Your task to perform on an android device: open device folders in google photos Image 0: 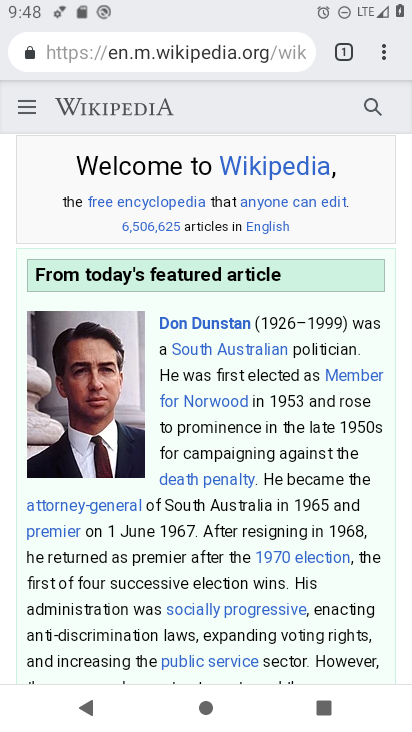
Step 0: press home button
Your task to perform on an android device: open device folders in google photos Image 1: 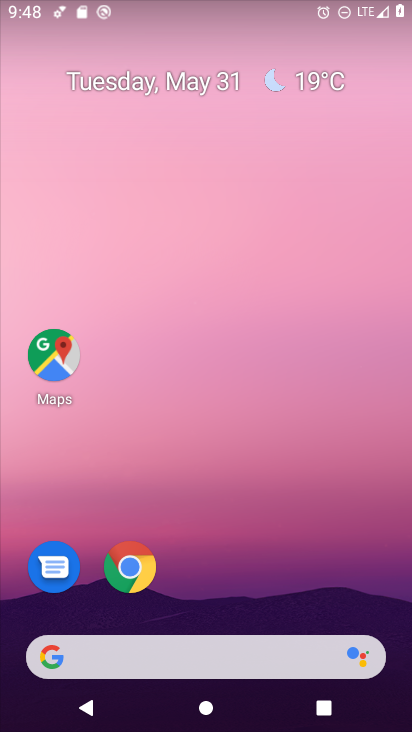
Step 1: drag from (219, 606) to (214, 317)
Your task to perform on an android device: open device folders in google photos Image 2: 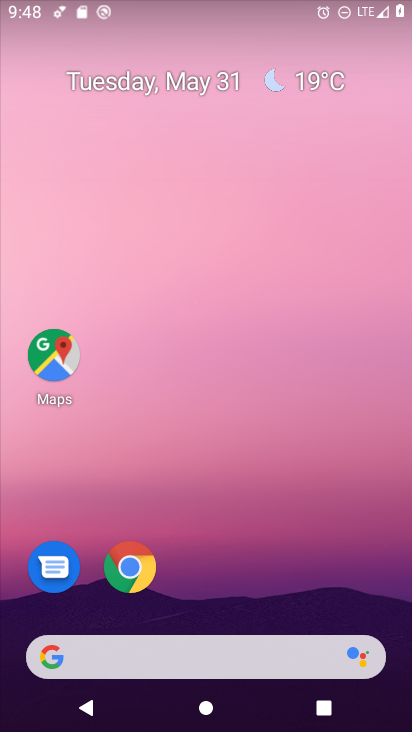
Step 2: drag from (228, 653) to (308, 181)
Your task to perform on an android device: open device folders in google photos Image 3: 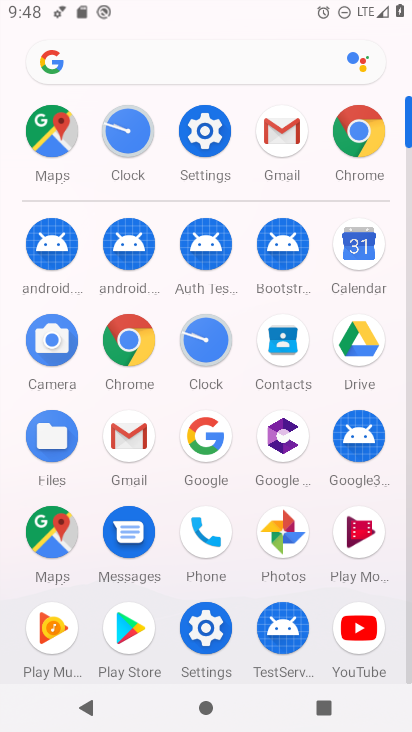
Step 3: click (289, 534)
Your task to perform on an android device: open device folders in google photos Image 4: 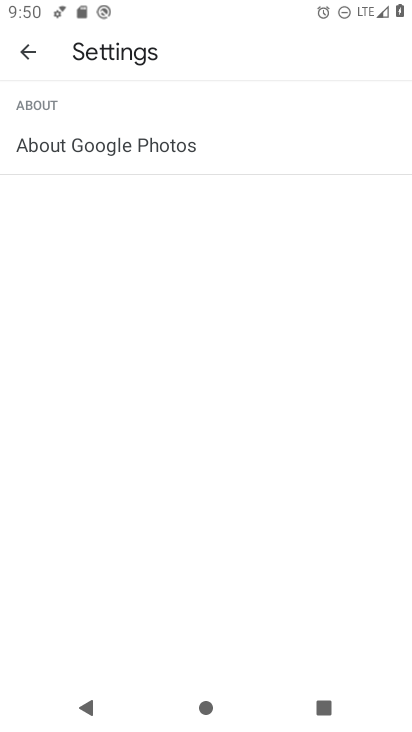
Step 4: press home button
Your task to perform on an android device: open device folders in google photos Image 5: 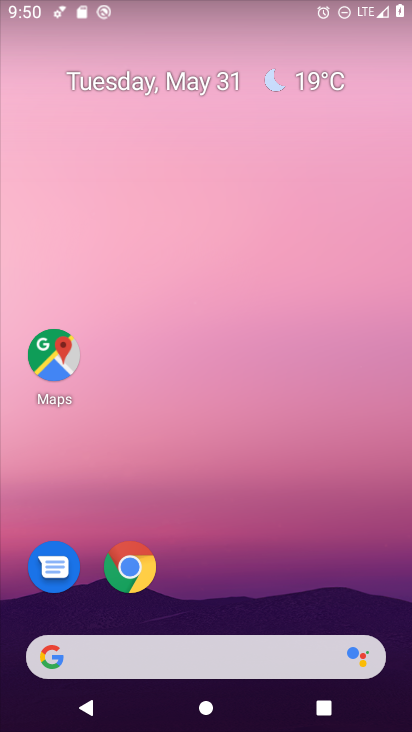
Step 5: drag from (161, 629) to (292, 169)
Your task to perform on an android device: open device folders in google photos Image 6: 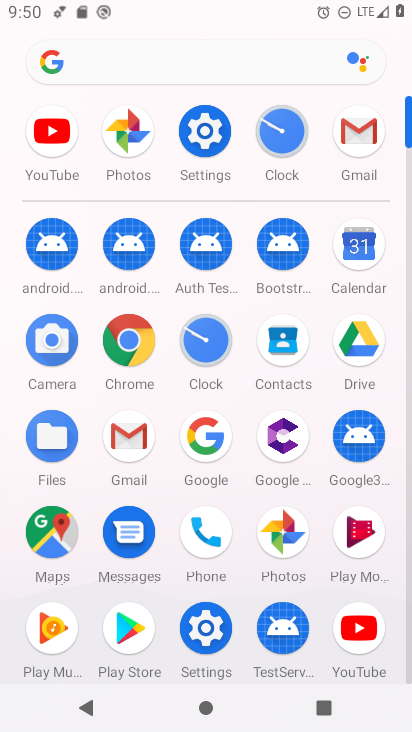
Step 6: click (141, 137)
Your task to perform on an android device: open device folders in google photos Image 7: 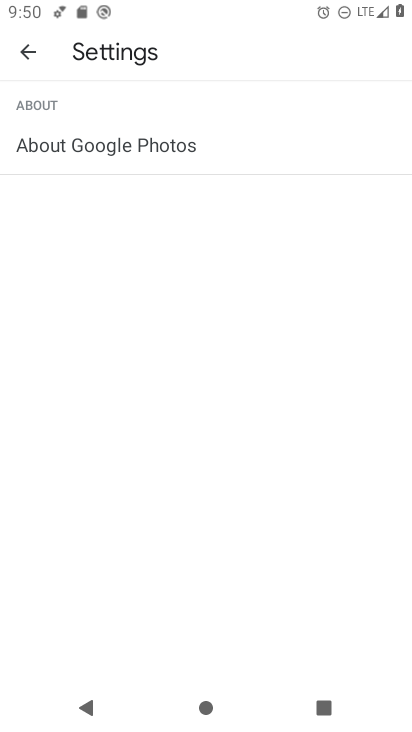
Step 7: click (33, 46)
Your task to perform on an android device: open device folders in google photos Image 8: 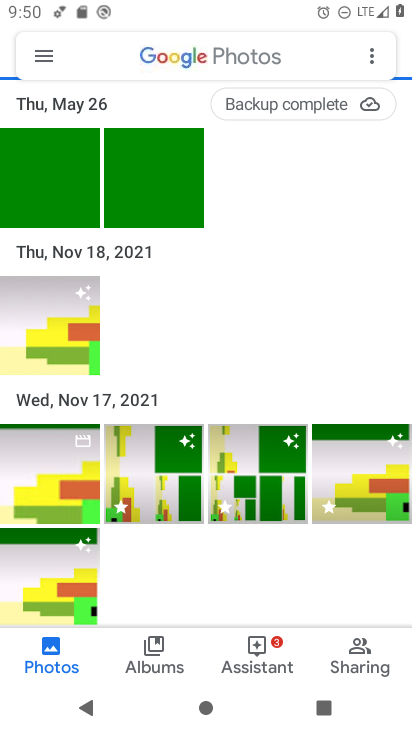
Step 8: click (35, 60)
Your task to perform on an android device: open device folders in google photos Image 9: 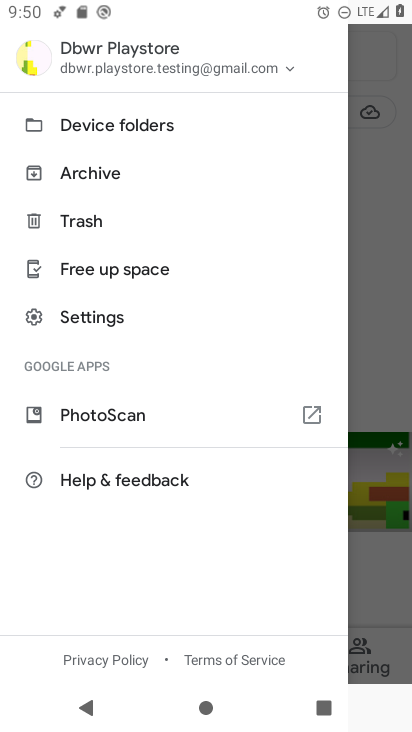
Step 9: click (141, 124)
Your task to perform on an android device: open device folders in google photos Image 10: 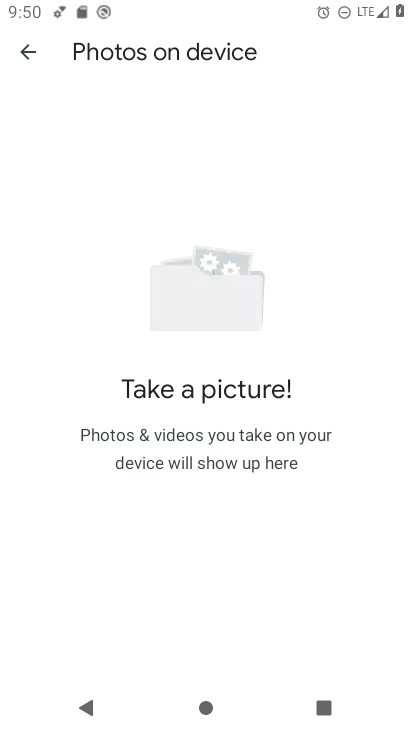
Step 10: task complete